Your task to perform on an android device: clear history in the chrome app Image 0: 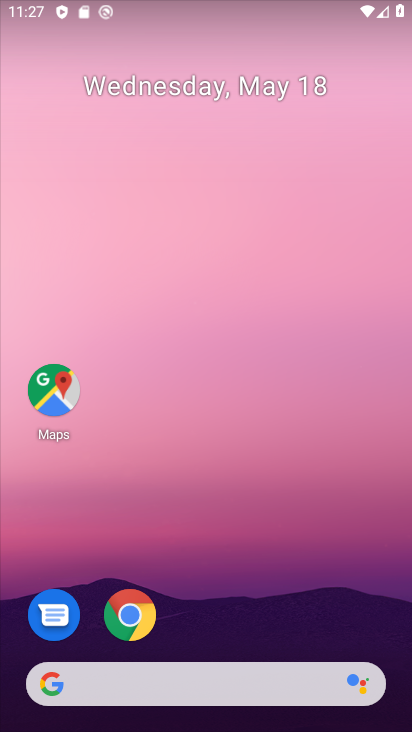
Step 0: click (139, 608)
Your task to perform on an android device: clear history in the chrome app Image 1: 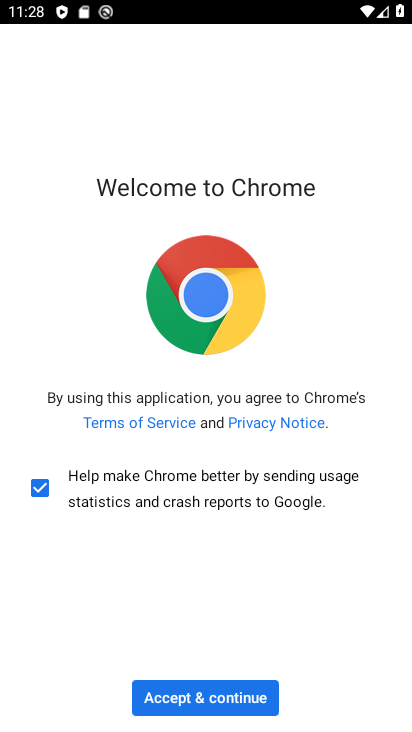
Step 1: click (227, 705)
Your task to perform on an android device: clear history in the chrome app Image 2: 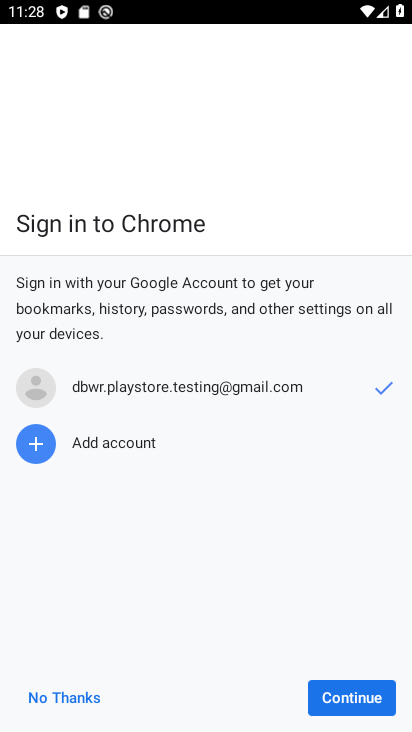
Step 2: click (74, 695)
Your task to perform on an android device: clear history in the chrome app Image 3: 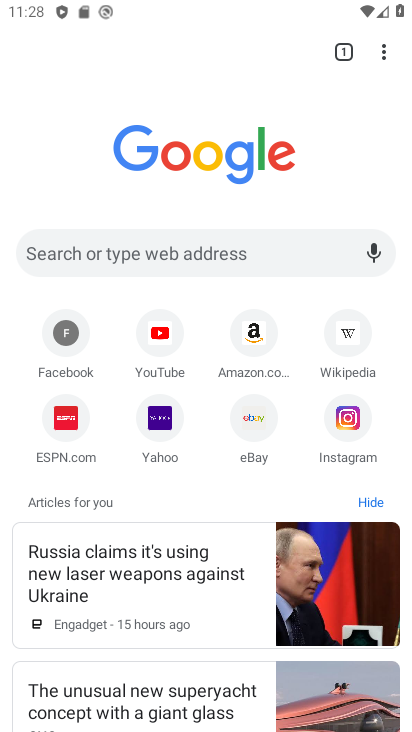
Step 3: click (382, 50)
Your task to perform on an android device: clear history in the chrome app Image 4: 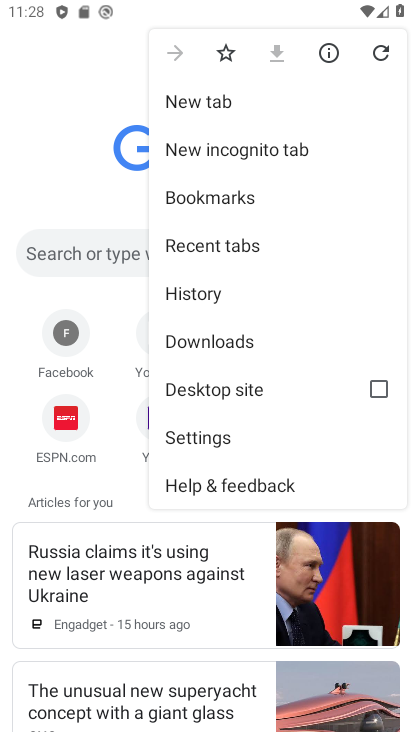
Step 4: click (213, 290)
Your task to perform on an android device: clear history in the chrome app Image 5: 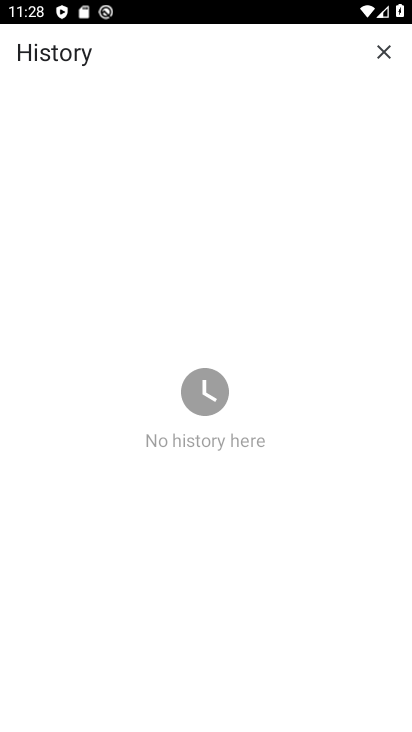
Step 5: task complete